Your task to perform on an android device: Open display settings Image 0: 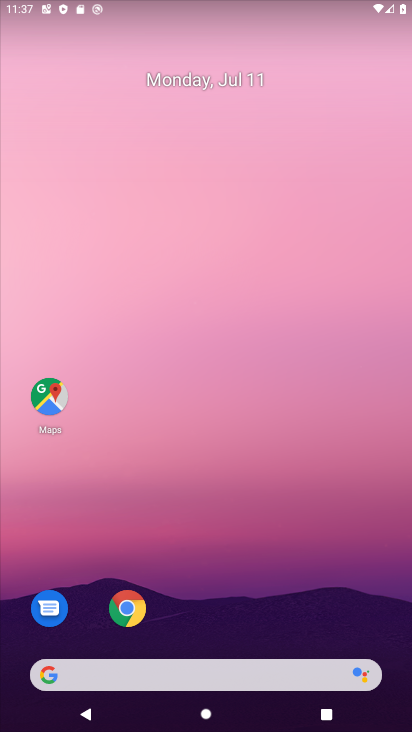
Step 0: drag from (207, 618) to (243, 32)
Your task to perform on an android device: Open display settings Image 1: 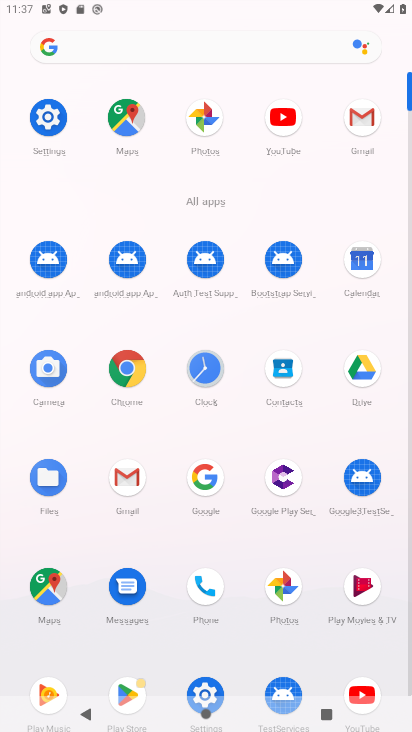
Step 1: click (44, 105)
Your task to perform on an android device: Open display settings Image 2: 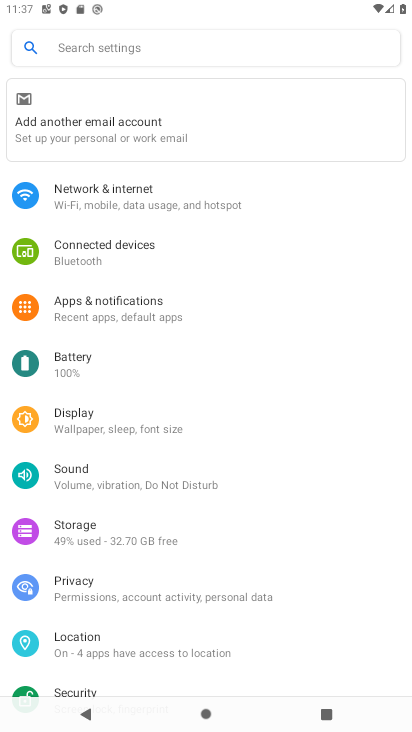
Step 2: click (102, 418)
Your task to perform on an android device: Open display settings Image 3: 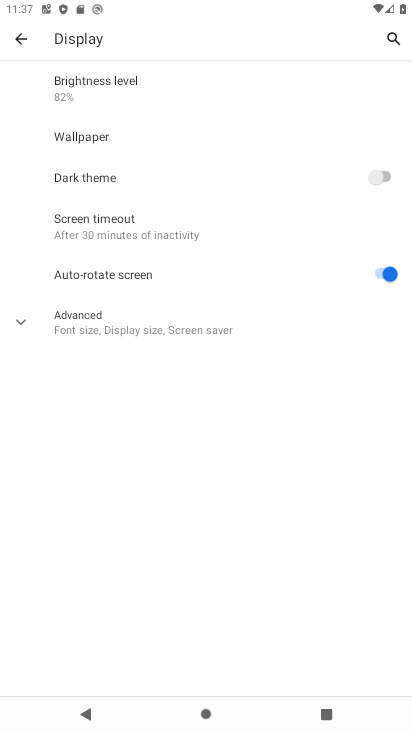
Step 3: task complete